Your task to perform on an android device: make emails show in primary in the gmail app Image 0: 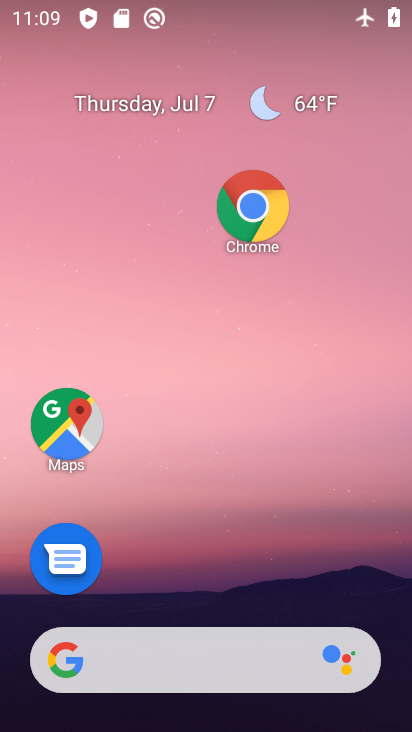
Step 0: drag from (146, 639) to (163, 185)
Your task to perform on an android device: make emails show in primary in the gmail app Image 1: 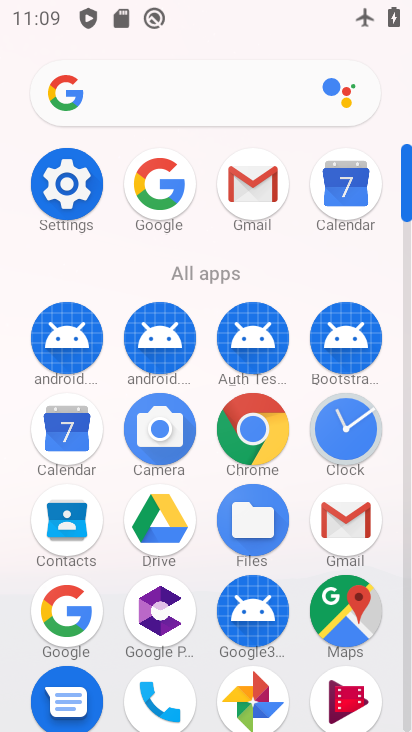
Step 1: click (244, 185)
Your task to perform on an android device: make emails show in primary in the gmail app Image 2: 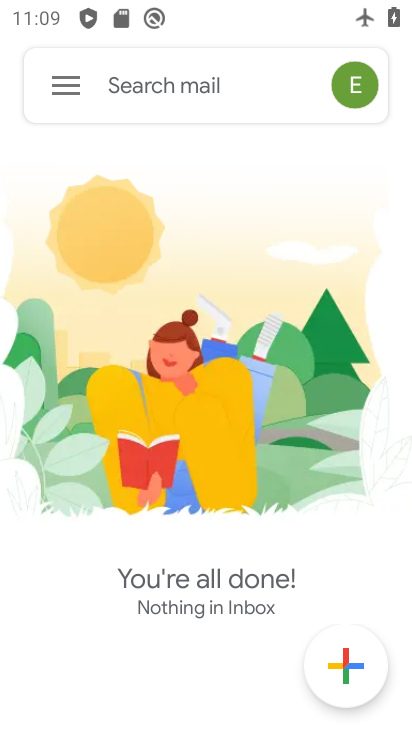
Step 2: click (66, 83)
Your task to perform on an android device: make emails show in primary in the gmail app Image 3: 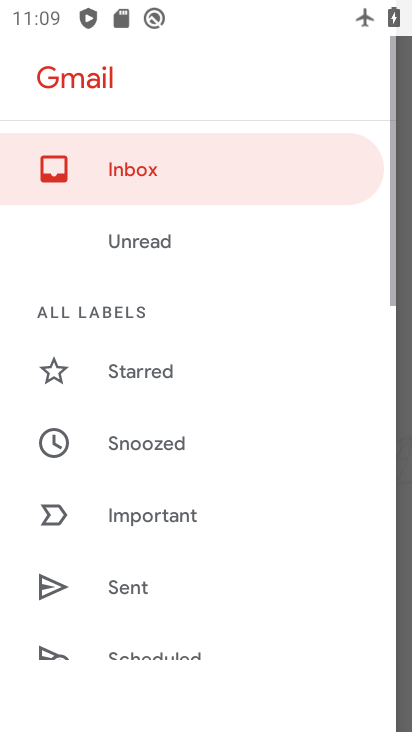
Step 3: drag from (117, 643) to (188, 244)
Your task to perform on an android device: make emails show in primary in the gmail app Image 4: 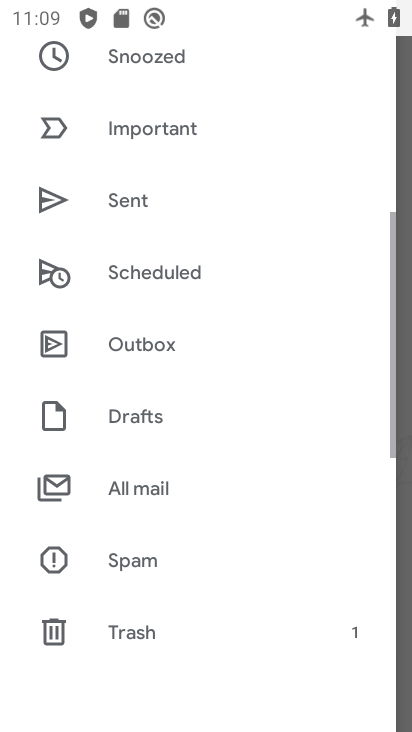
Step 4: drag from (137, 635) to (166, 253)
Your task to perform on an android device: make emails show in primary in the gmail app Image 5: 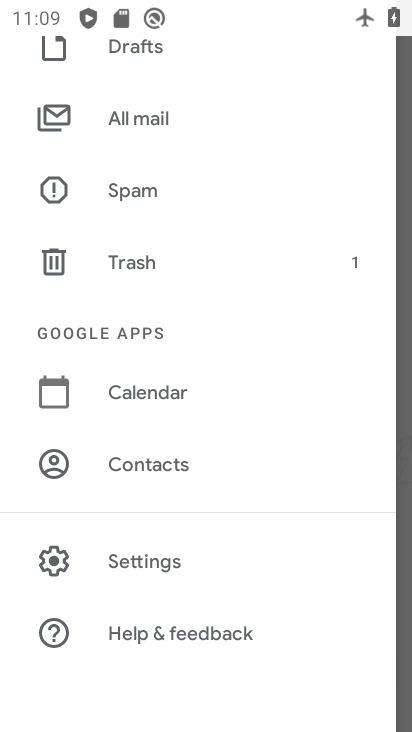
Step 5: click (153, 570)
Your task to perform on an android device: make emails show in primary in the gmail app Image 6: 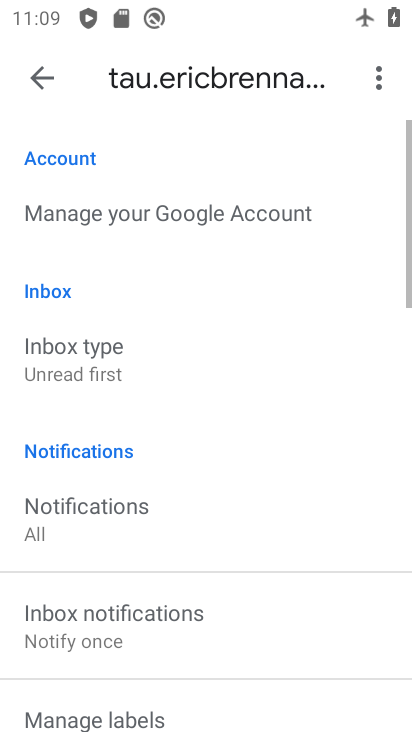
Step 6: drag from (134, 693) to (154, 322)
Your task to perform on an android device: make emails show in primary in the gmail app Image 7: 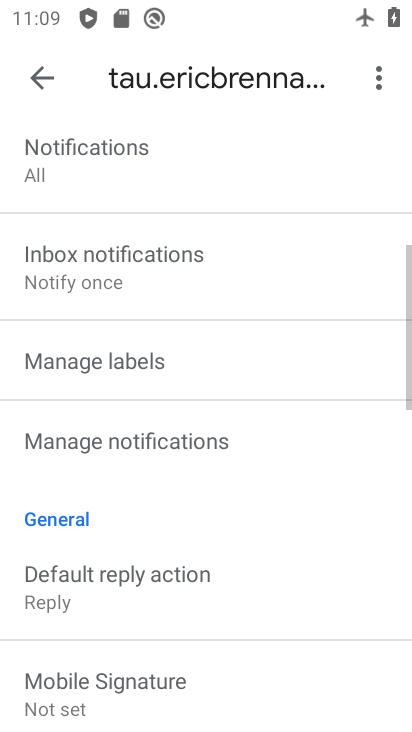
Step 7: drag from (117, 686) to (174, 253)
Your task to perform on an android device: make emails show in primary in the gmail app Image 8: 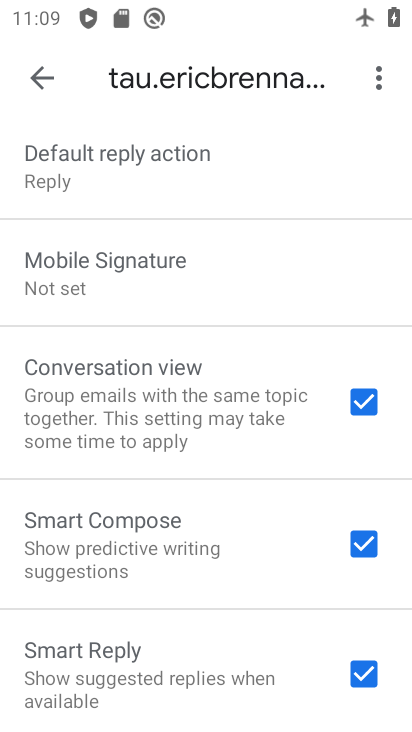
Step 8: drag from (126, 145) to (153, 596)
Your task to perform on an android device: make emails show in primary in the gmail app Image 9: 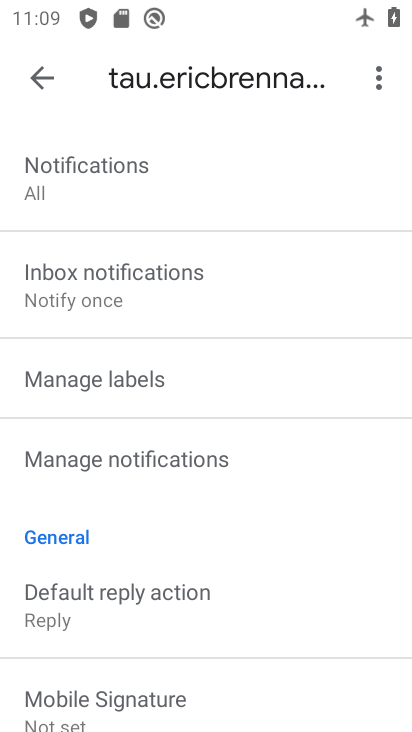
Step 9: drag from (139, 151) to (171, 604)
Your task to perform on an android device: make emails show in primary in the gmail app Image 10: 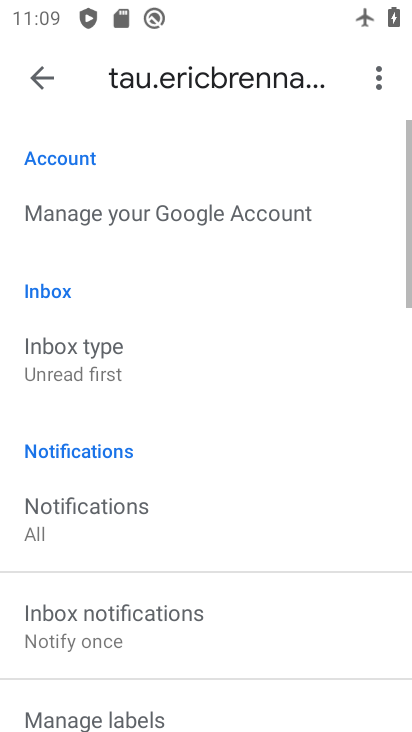
Step 10: drag from (139, 182) to (169, 557)
Your task to perform on an android device: make emails show in primary in the gmail app Image 11: 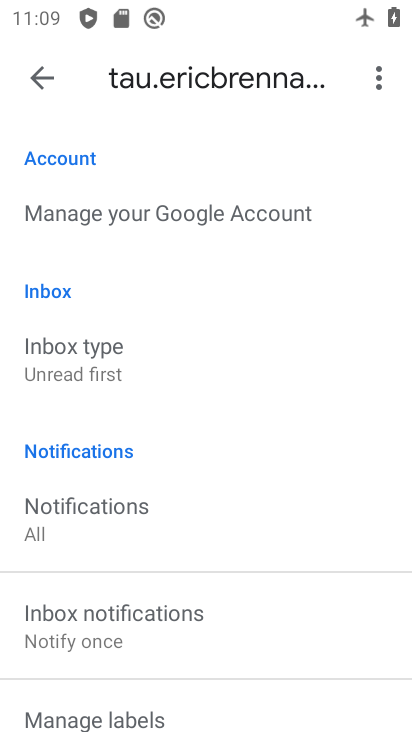
Step 11: click (91, 365)
Your task to perform on an android device: make emails show in primary in the gmail app Image 12: 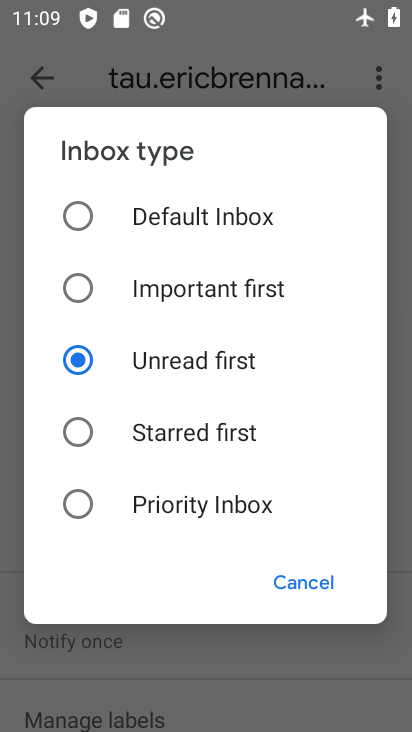
Step 12: click (204, 211)
Your task to perform on an android device: make emails show in primary in the gmail app Image 13: 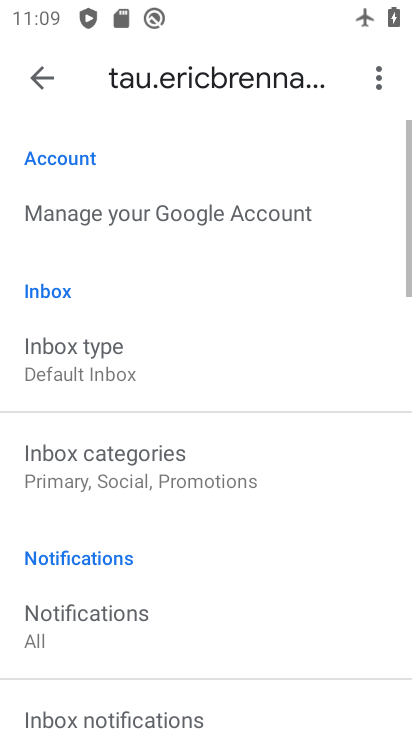
Step 13: click (132, 474)
Your task to perform on an android device: make emails show in primary in the gmail app Image 14: 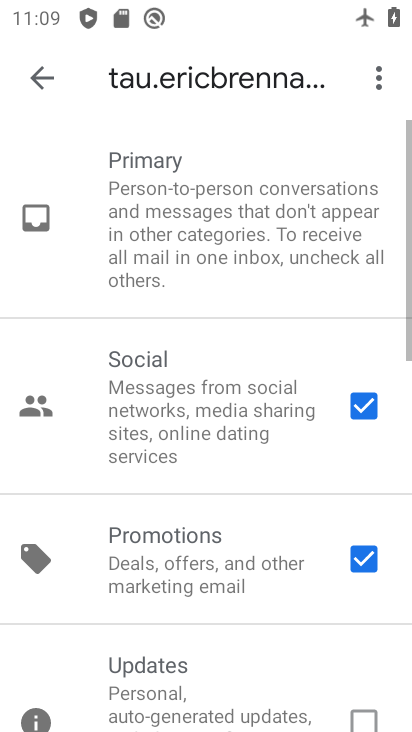
Step 14: click (358, 562)
Your task to perform on an android device: make emails show in primary in the gmail app Image 15: 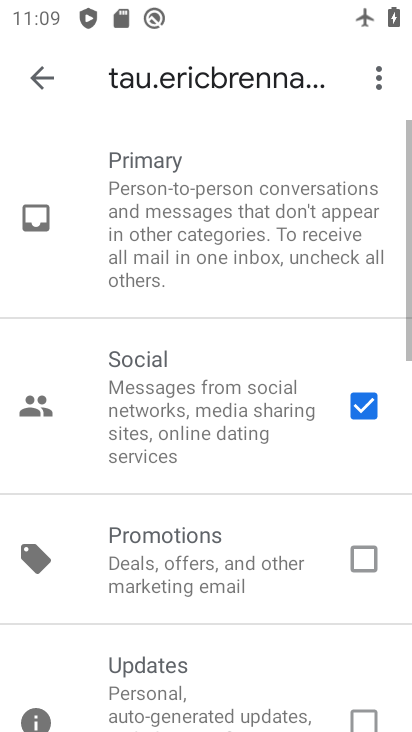
Step 15: click (359, 400)
Your task to perform on an android device: make emails show in primary in the gmail app Image 16: 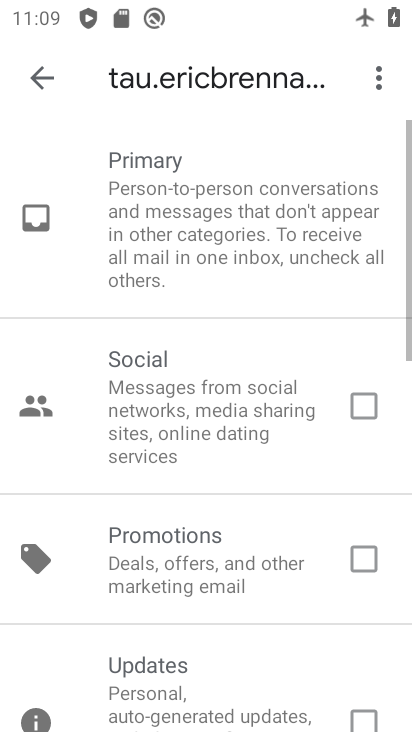
Step 16: click (49, 81)
Your task to perform on an android device: make emails show in primary in the gmail app Image 17: 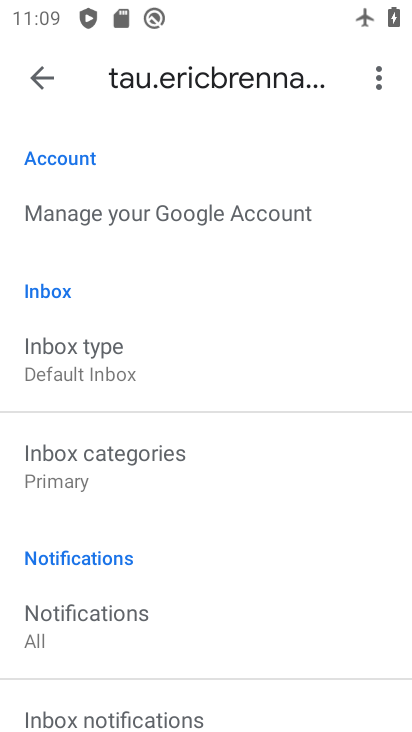
Step 17: task complete